Your task to perform on an android device: Add amazon basics triple a to the cart on bestbuy, then select checkout. Image 0: 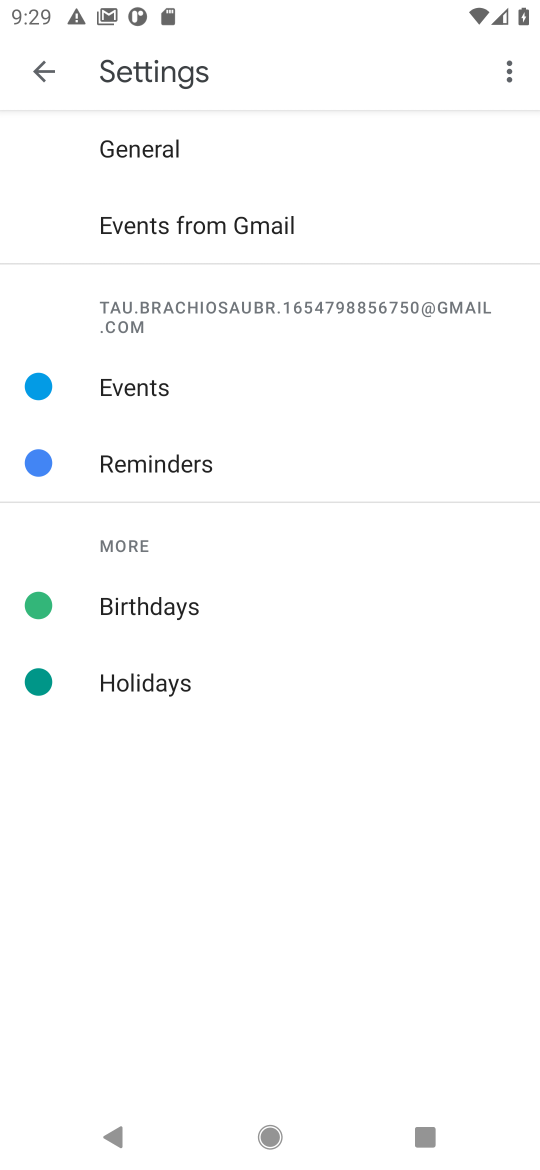
Step 0: press home button
Your task to perform on an android device: Add amazon basics triple a to the cart on bestbuy, then select checkout. Image 1: 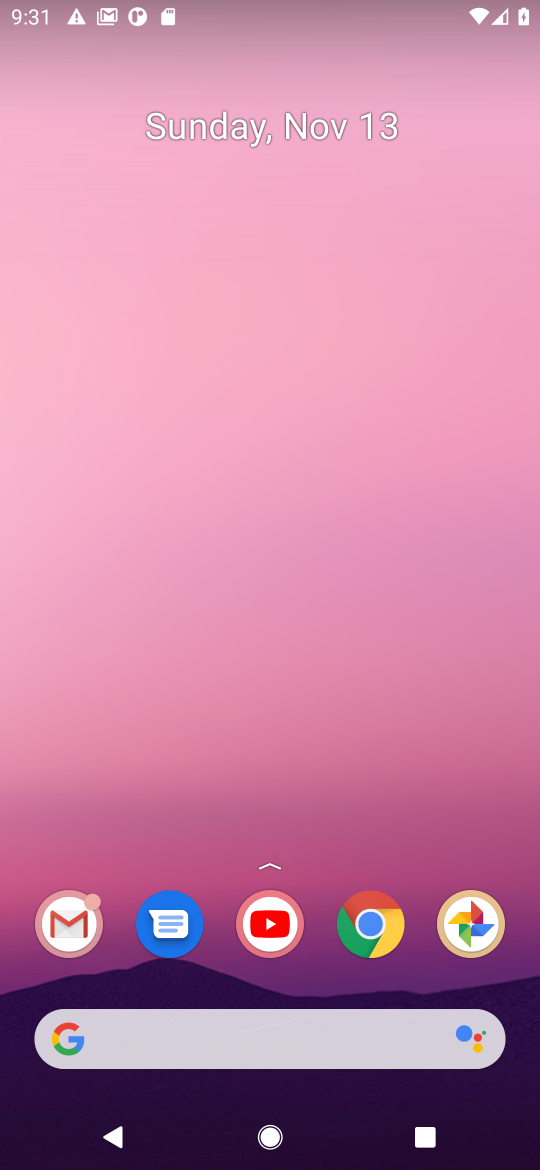
Step 1: click (375, 932)
Your task to perform on an android device: Add amazon basics triple a to the cart on bestbuy, then select checkout. Image 2: 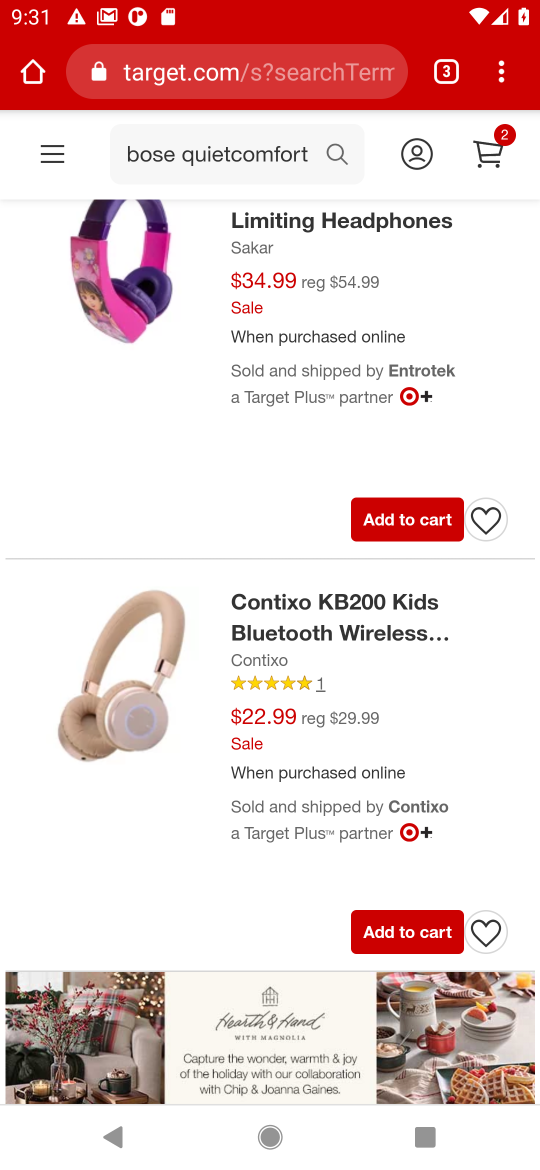
Step 2: click (237, 81)
Your task to perform on an android device: Add amazon basics triple a to the cart on bestbuy, then select checkout. Image 3: 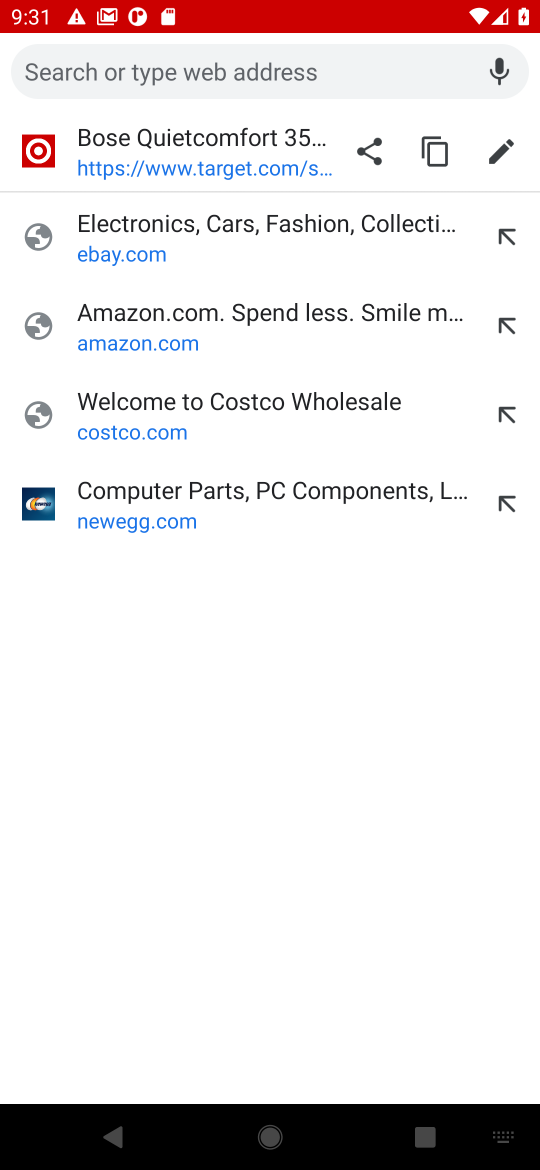
Step 3: type "bestbuy.com"
Your task to perform on an android device: Add amazon basics triple a to the cart on bestbuy, then select checkout. Image 4: 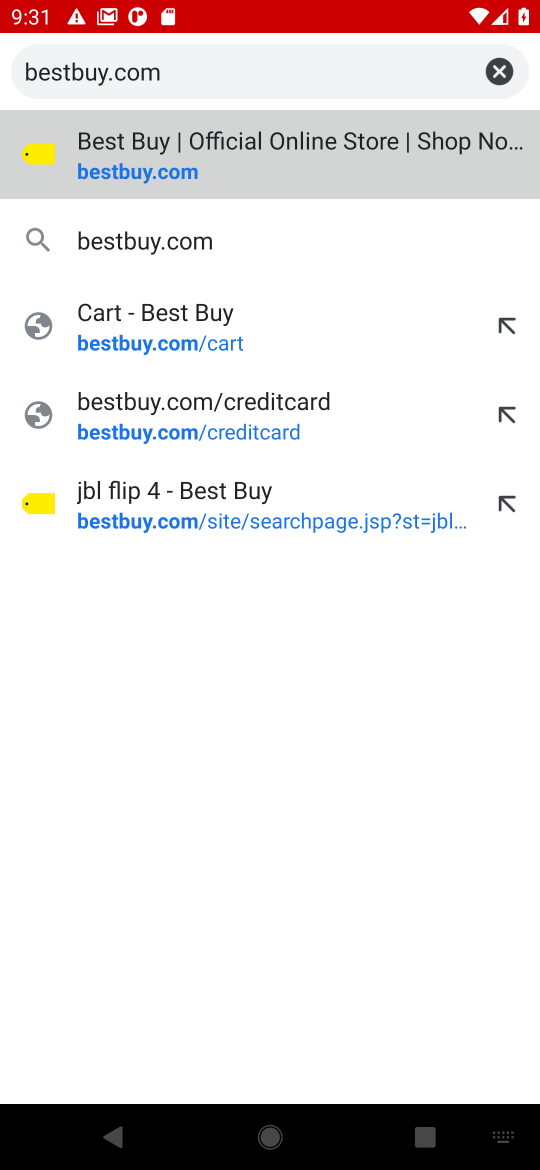
Step 4: click (147, 161)
Your task to perform on an android device: Add amazon basics triple a to the cart on bestbuy, then select checkout. Image 5: 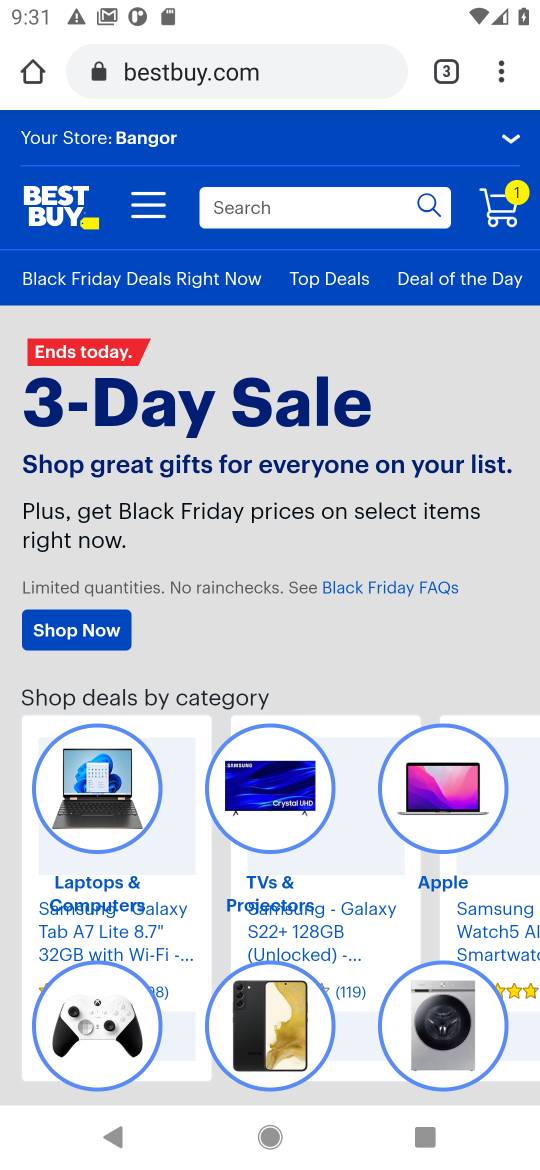
Step 5: click (241, 199)
Your task to perform on an android device: Add amazon basics triple a to the cart on bestbuy, then select checkout. Image 6: 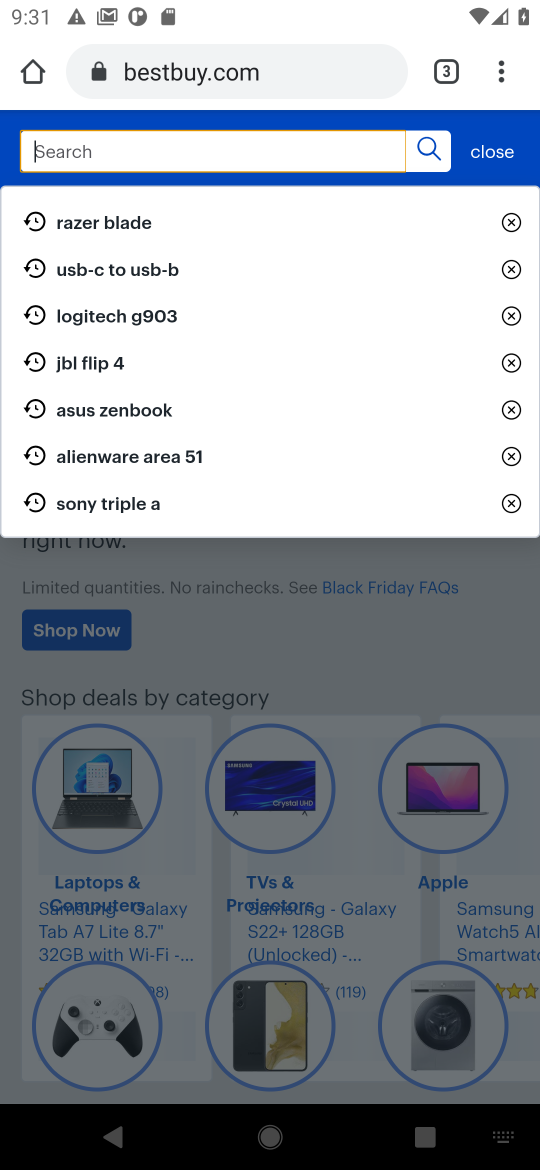
Step 6: type "amazon basics triple a"
Your task to perform on an android device: Add amazon basics triple a to the cart on bestbuy, then select checkout. Image 7: 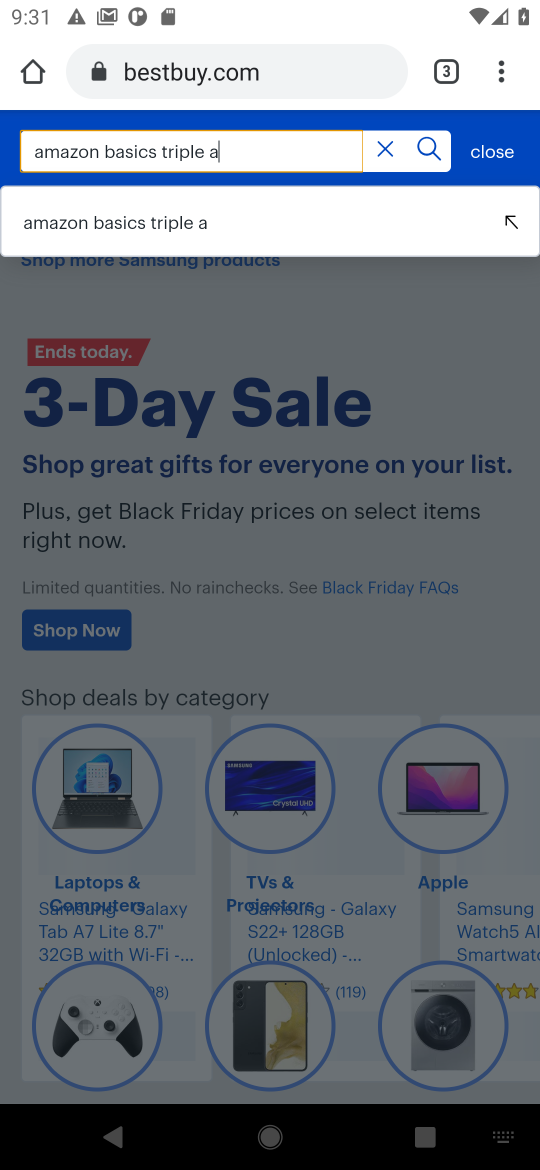
Step 7: click (156, 217)
Your task to perform on an android device: Add amazon basics triple a to the cart on bestbuy, then select checkout. Image 8: 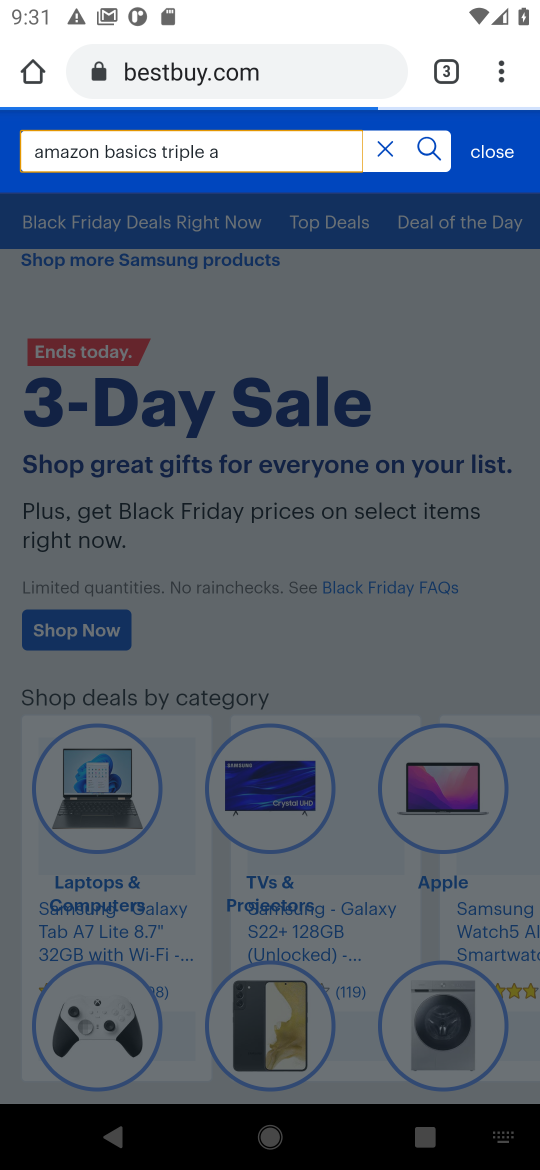
Step 8: click (440, 146)
Your task to perform on an android device: Add amazon basics triple a to the cart on bestbuy, then select checkout. Image 9: 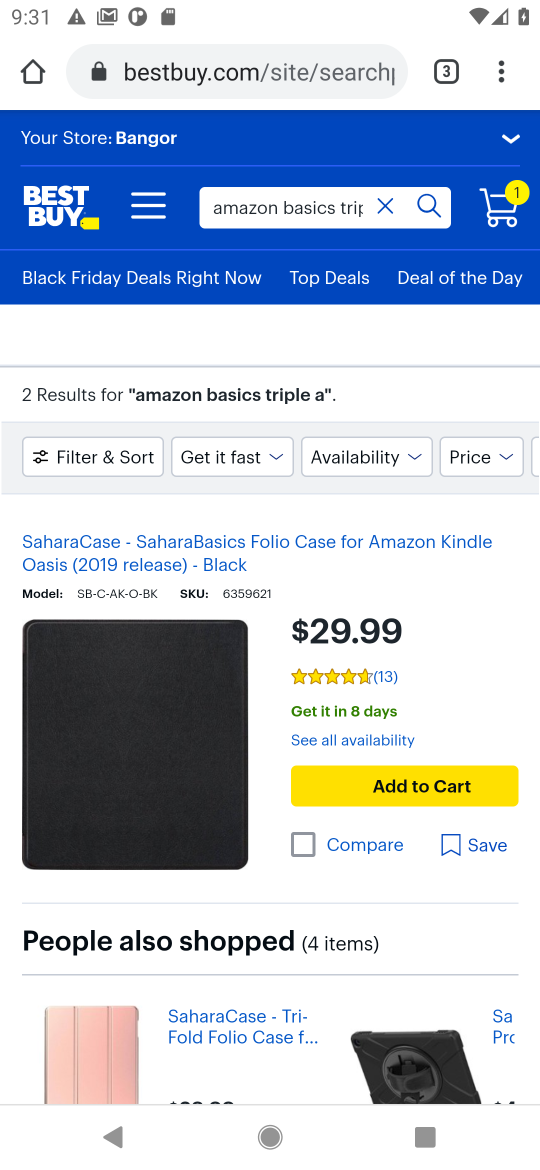
Step 9: task complete